Your task to perform on an android device: Go to notification settings Image 0: 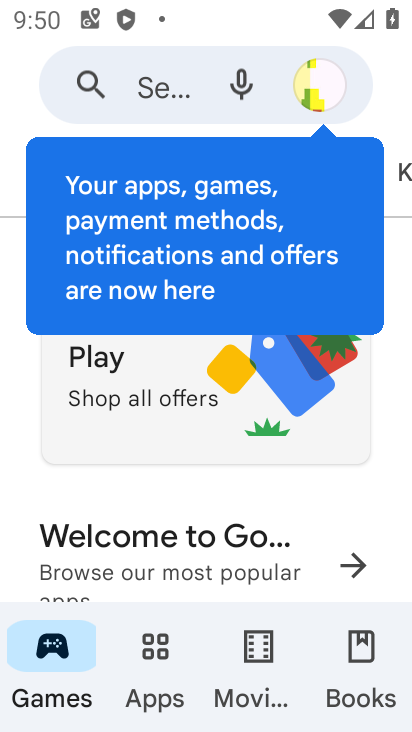
Step 0: press home button
Your task to perform on an android device: Go to notification settings Image 1: 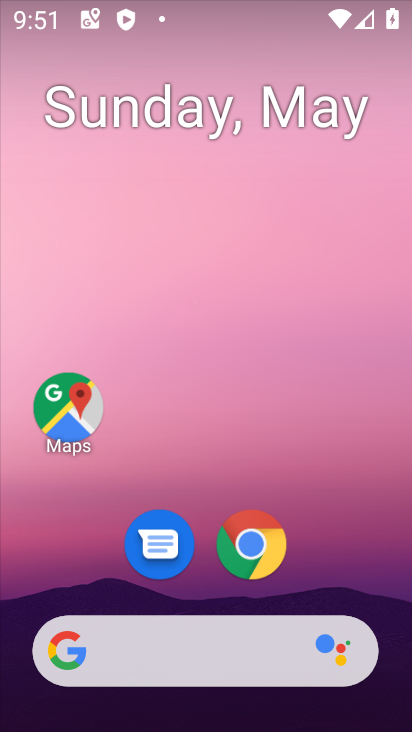
Step 1: drag from (331, 541) to (320, 58)
Your task to perform on an android device: Go to notification settings Image 2: 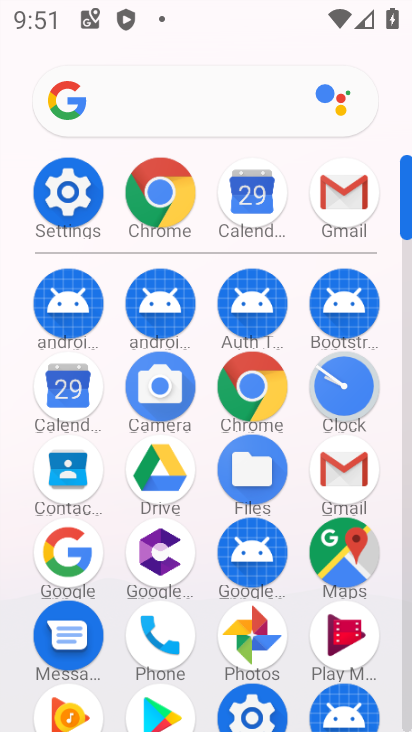
Step 2: click (43, 197)
Your task to perform on an android device: Go to notification settings Image 3: 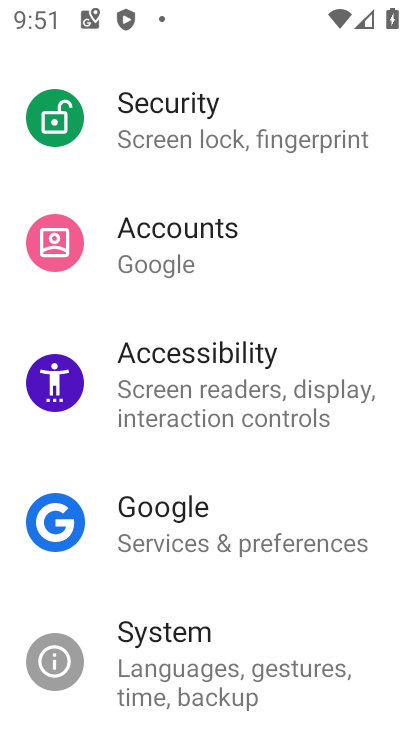
Step 3: drag from (207, 186) to (225, 681)
Your task to perform on an android device: Go to notification settings Image 4: 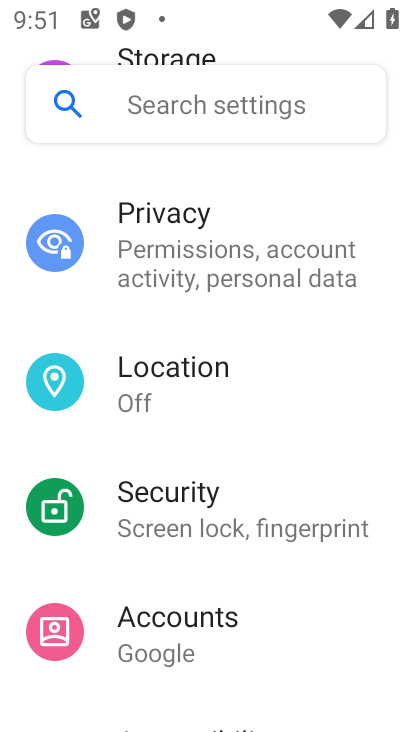
Step 4: drag from (202, 244) to (230, 727)
Your task to perform on an android device: Go to notification settings Image 5: 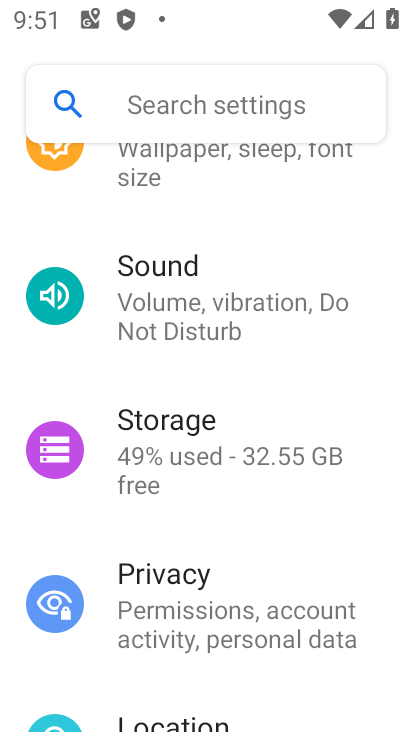
Step 5: drag from (238, 266) to (253, 722)
Your task to perform on an android device: Go to notification settings Image 6: 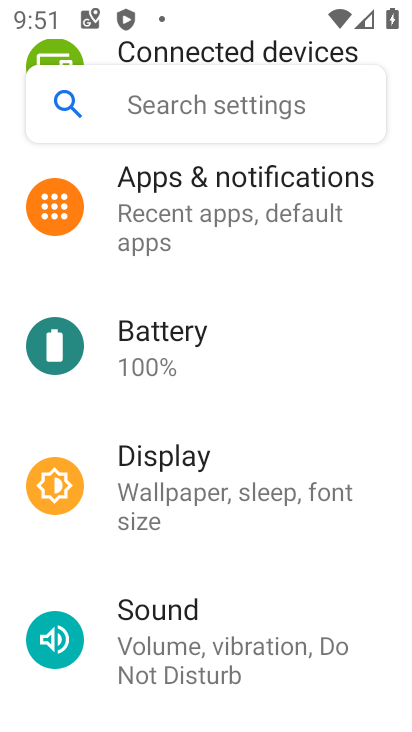
Step 6: click (237, 190)
Your task to perform on an android device: Go to notification settings Image 7: 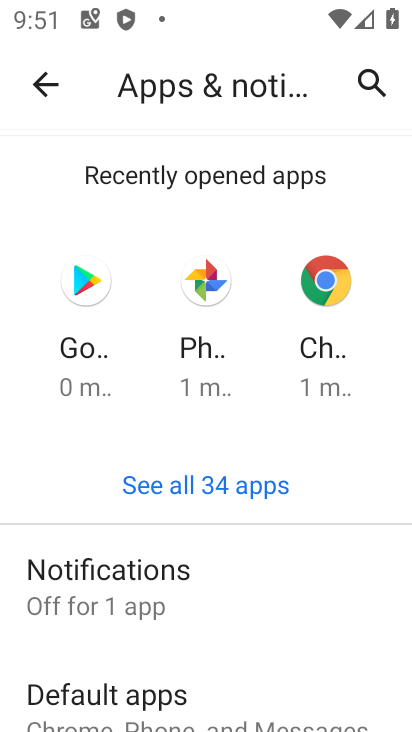
Step 7: click (108, 598)
Your task to perform on an android device: Go to notification settings Image 8: 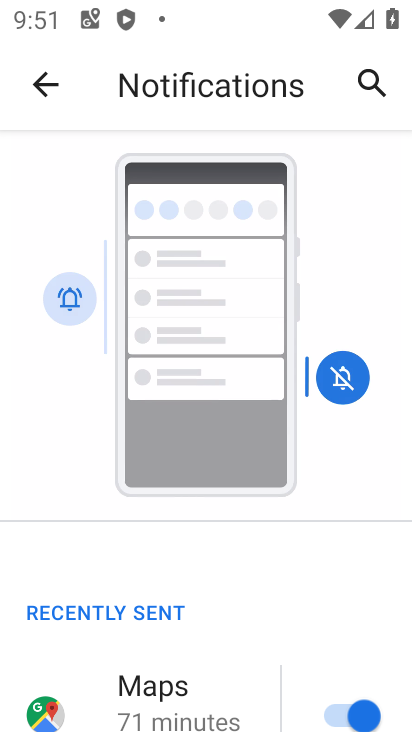
Step 8: task complete